Your task to perform on an android device: move an email to a new category in the gmail app Image 0: 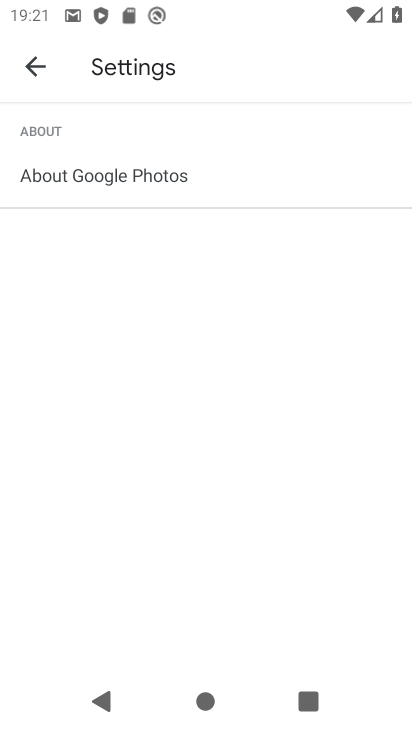
Step 0: press home button
Your task to perform on an android device: move an email to a new category in the gmail app Image 1: 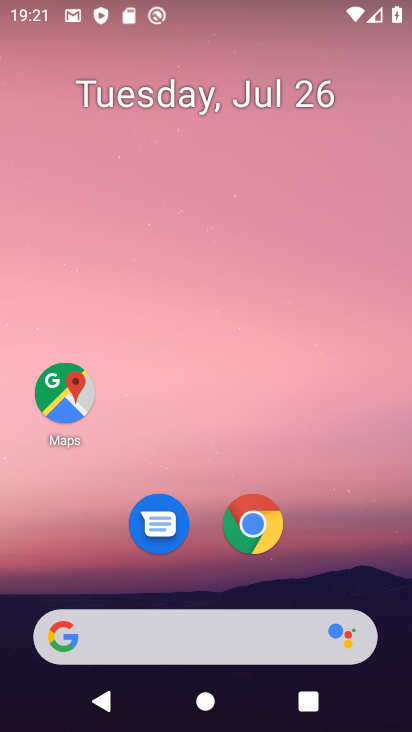
Step 1: drag from (187, 627) to (311, 136)
Your task to perform on an android device: move an email to a new category in the gmail app Image 2: 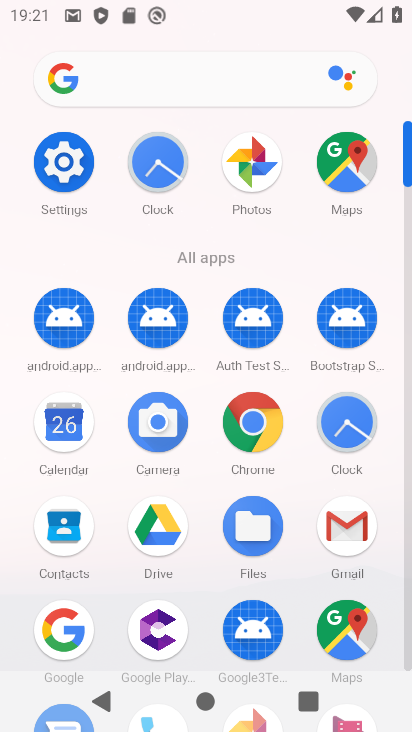
Step 2: click (345, 530)
Your task to perform on an android device: move an email to a new category in the gmail app Image 3: 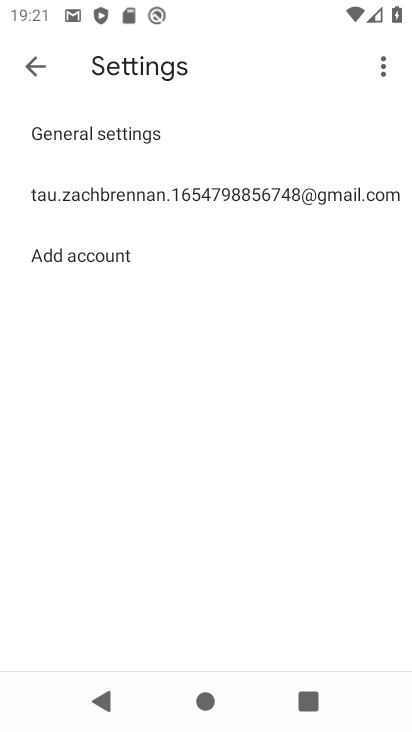
Step 3: click (33, 66)
Your task to perform on an android device: move an email to a new category in the gmail app Image 4: 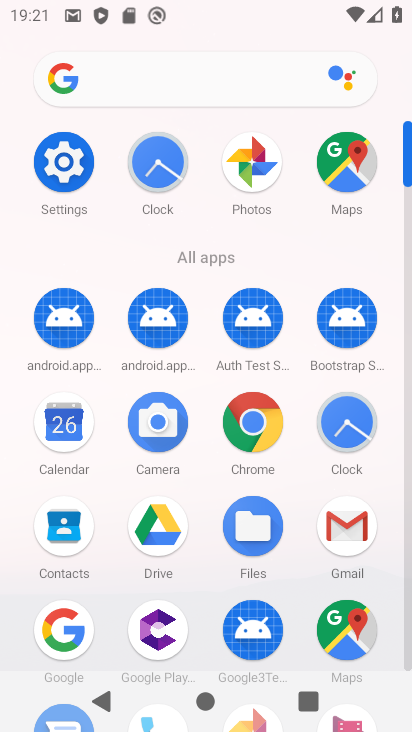
Step 4: click (346, 531)
Your task to perform on an android device: move an email to a new category in the gmail app Image 5: 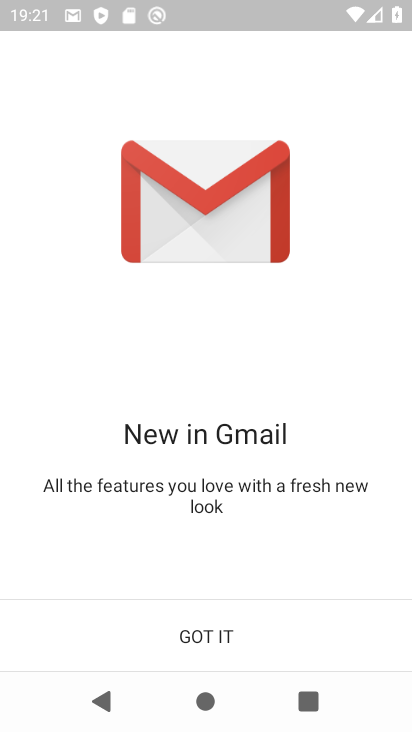
Step 5: click (230, 641)
Your task to perform on an android device: move an email to a new category in the gmail app Image 6: 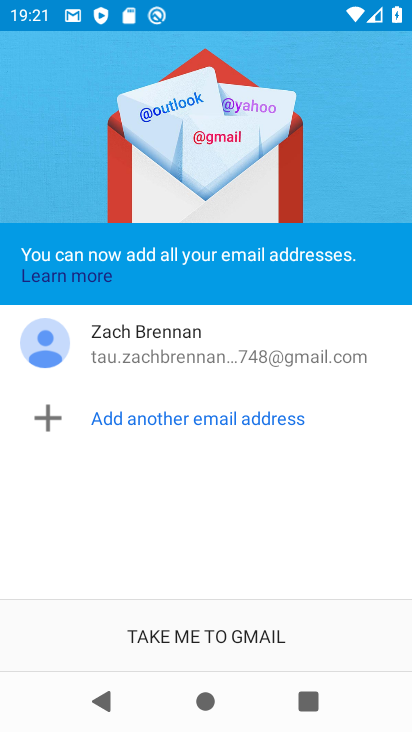
Step 6: click (230, 641)
Your task to perform on an android device: move an email to a new category in the gmail app Image 7: 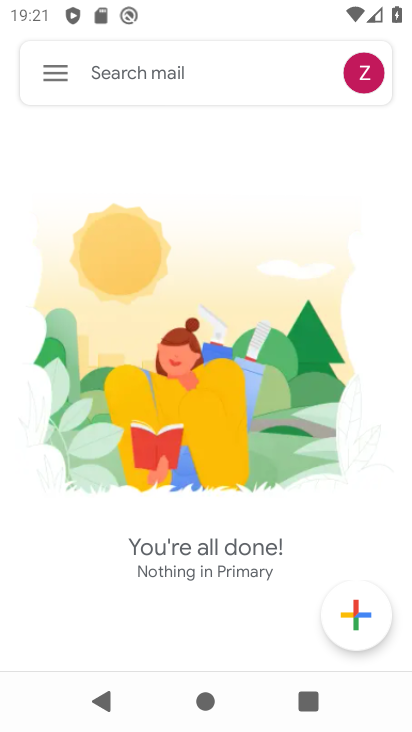
Step 7: click (55, 67)
Your task to perform on an android device: move an email to a new category in the gmail app Image 8: 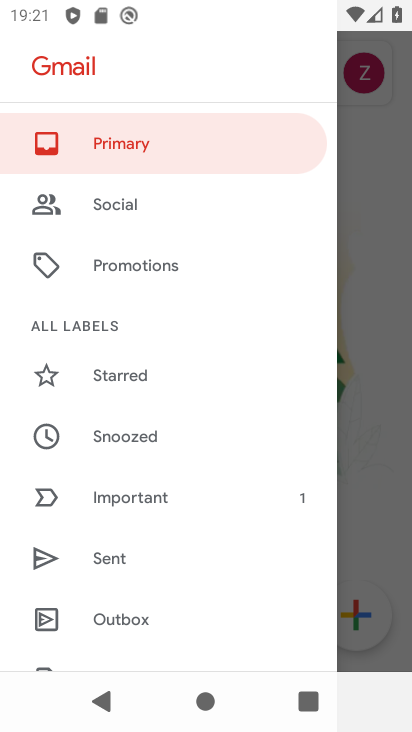
Step 8: click (199, 499)
Your task to perform on an android device: move an email to a new category in the gmail app Image 9: 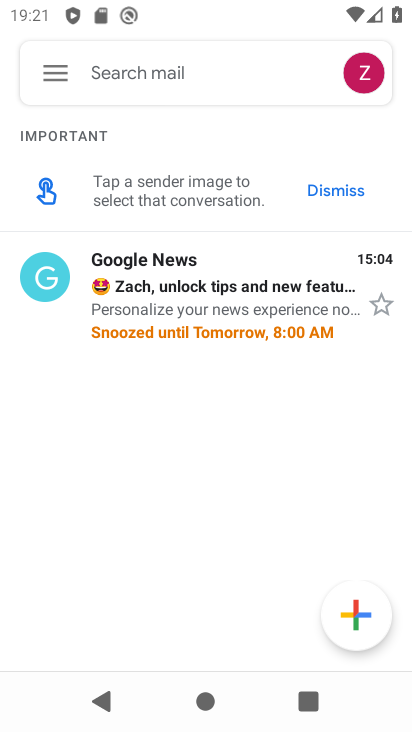
Step 9: click (52, 282)
Your task to perform on an android device: move an email to a new category in the gmail app Image 10: 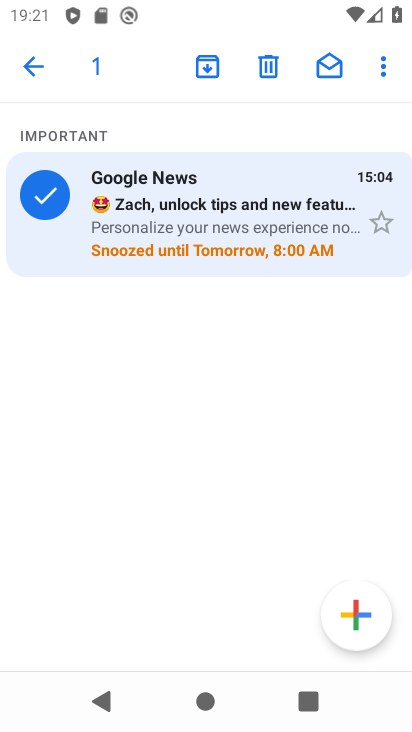
Step 10: click (385, 68)
Your task to perform on an android device: move an email to a new category in the gmail app Image 11: 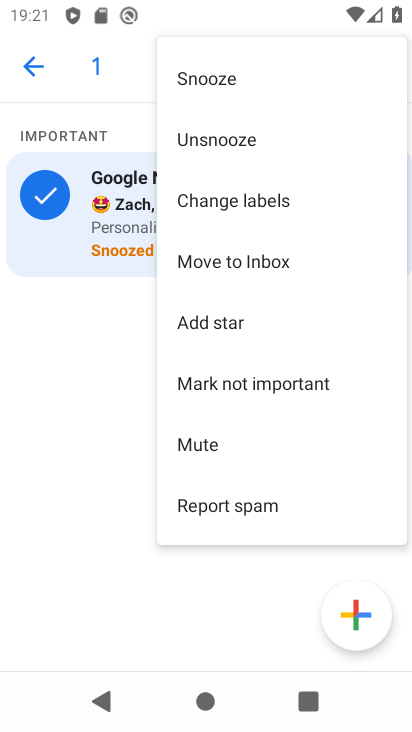
Step 11: click (265, 374)
Your task to perform on an android device: move an email to a new category in the gmail app Image 12: 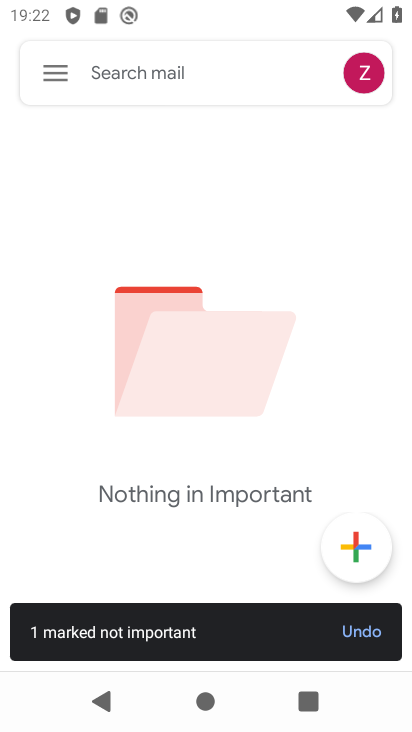
Step 12: task complete